Your task to perform on an android device: Is it going to rain tomorrow? Image 0: 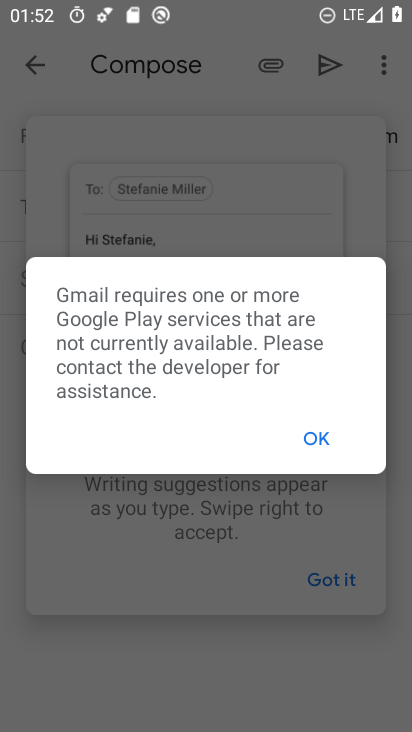
Step 0: press home button
Your task to perform on an android device: Is it going to rain tomorrow? Image 1: 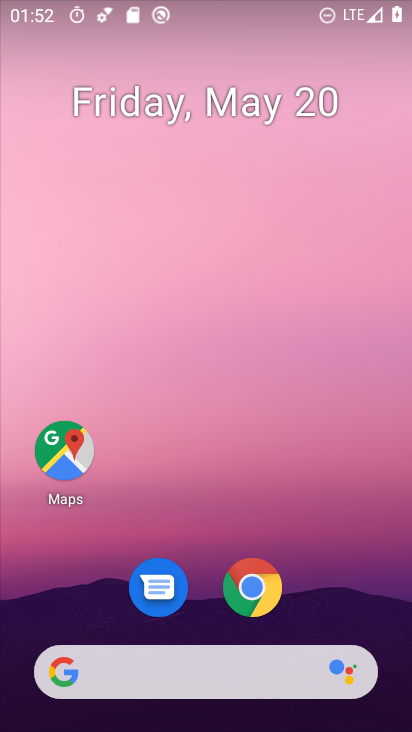
Step 1: click (239, 663)
Your task to perform on an android device: Is it going to rain tomorrow? Image 2: 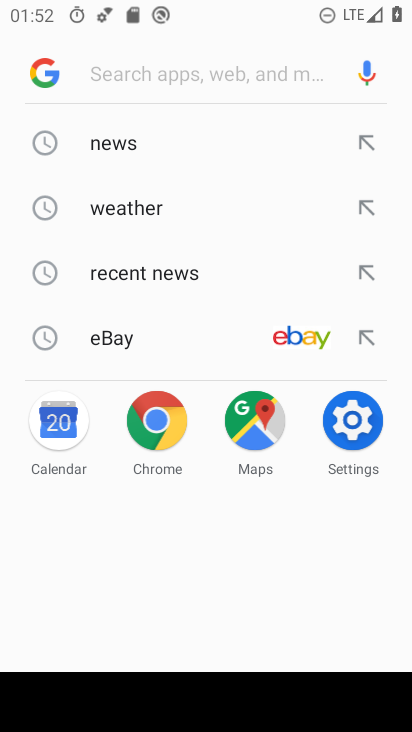
Step 2: click (152, 213)
Your task to perform on an android device: Is it going to rain tomorrow? Image 3: 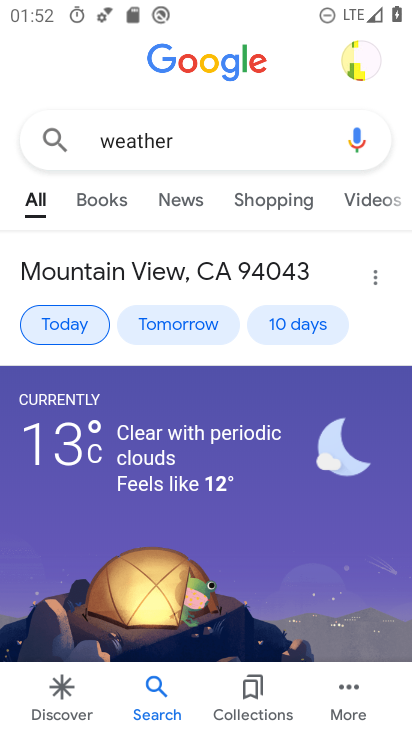
Step 3: click (198, 318)
Your task to perform on an android device: Is it going to rain tomorrow? Image 4: 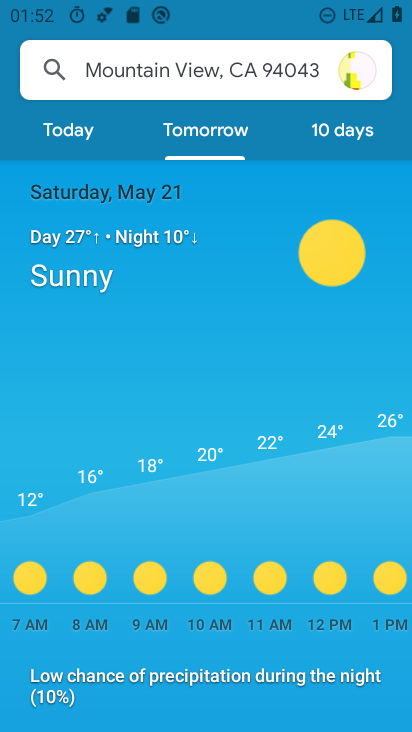
Step 4: task complete